Your task to perform on an android device: Go to battery settings Image 0: 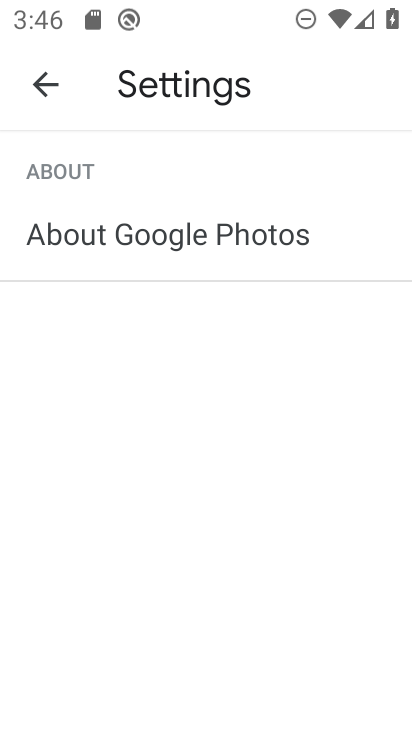
Step 0: press home button
Your task to perform on an android device: Go to battery settings Image 1: 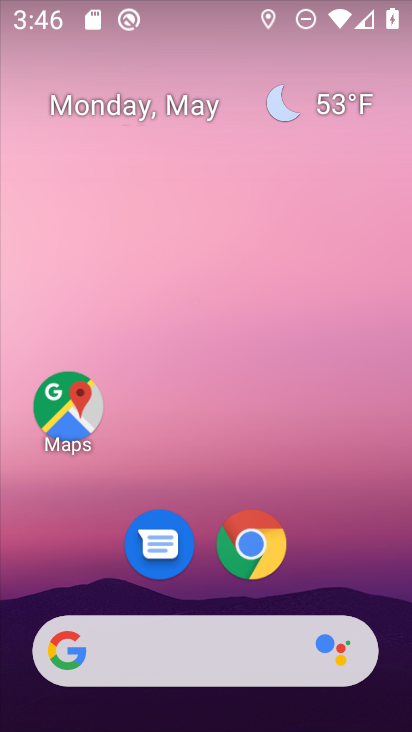
Step 1: drag from (109, 729) to (135, 49)
Your task to perform on an android device: Go to battery settings Image 2: 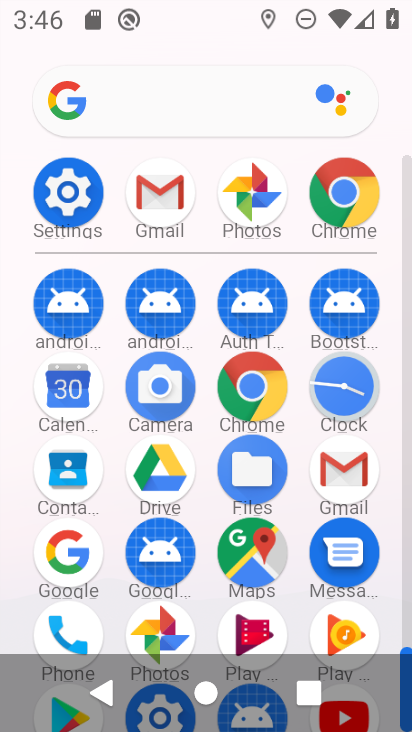
Step 2: drag from (111, 593) to (104, 175)
Your task to perform on an android device: Go to battery settings Image 3: 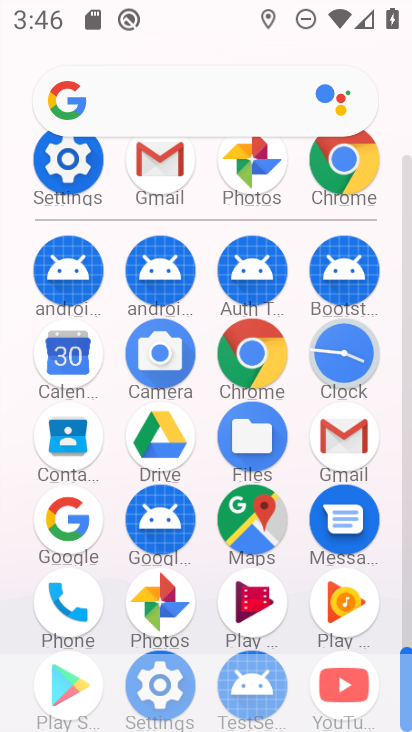
Step 3: click (161, 684)
Your task to perform on an android device: Go to battery settings Image 4: 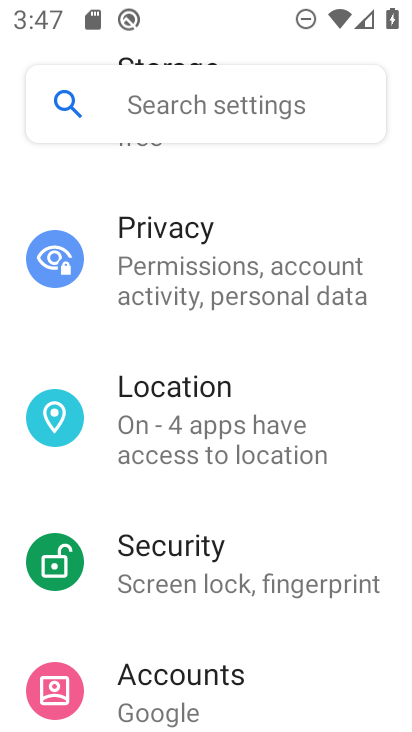
Step 4: drag from (235, 666) to (226, 726)
Your task to perform on an android device: Go to battery settings Image 5: 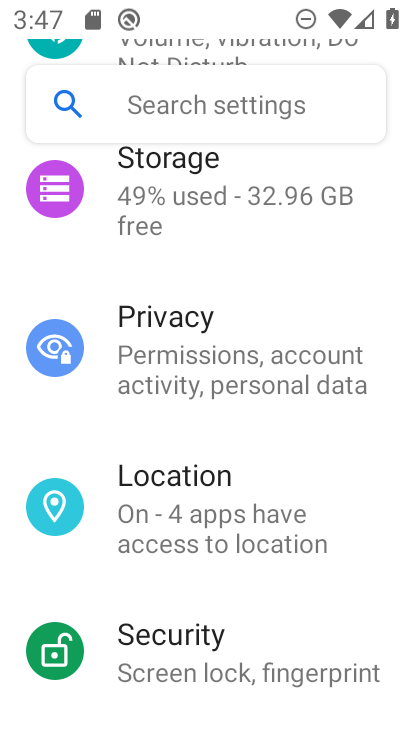
Step 5: drag from (266, 380) to (287, 687)
Your task to perform on an android device: Go to battery settings Image 6: 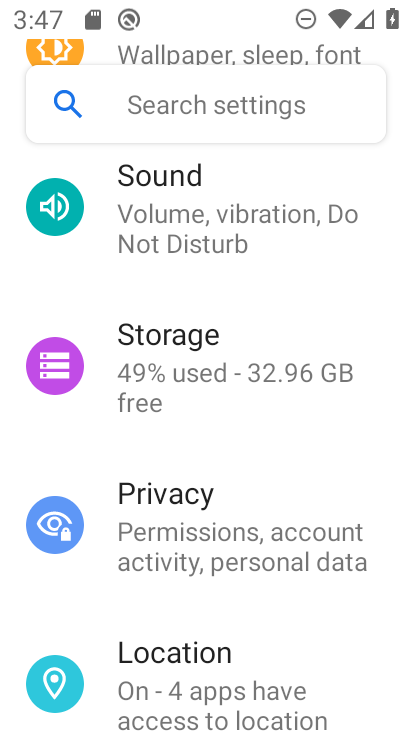
Step 6: drag from (274, 267) to (273, 591)
Your task to perform on an android device: Go to battery settings Image 7: 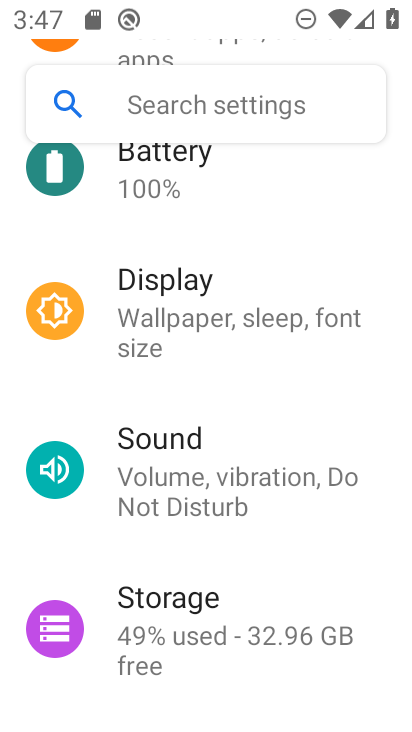
Step 7: click (184, 180)
Your task to perform on an android device: Go to battery settings Image 8: 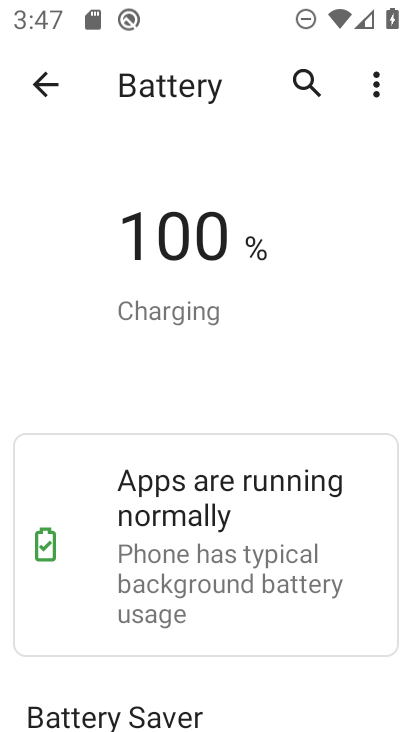
Step 8: task complete